Your task to perform on an android device: Open CNN.com Image 0: 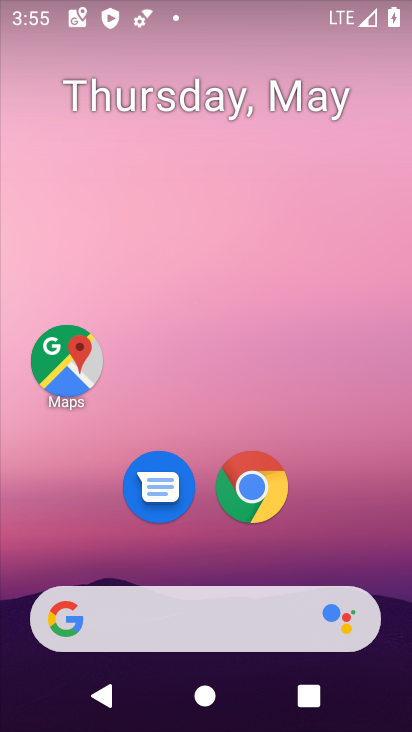
Step 0: drag from (212, 540) to (220, 152)
Your task to perform on an android device: Open CNN.com Image 1: 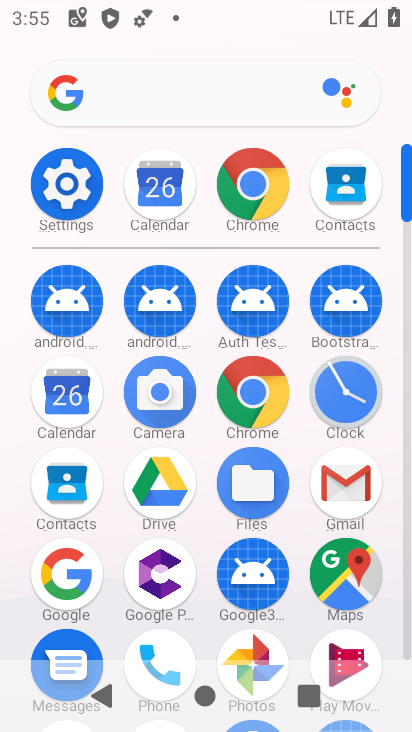
Step 1: click (262, 197)
Your task to perform on an android device: Open CNN.com Image 2: 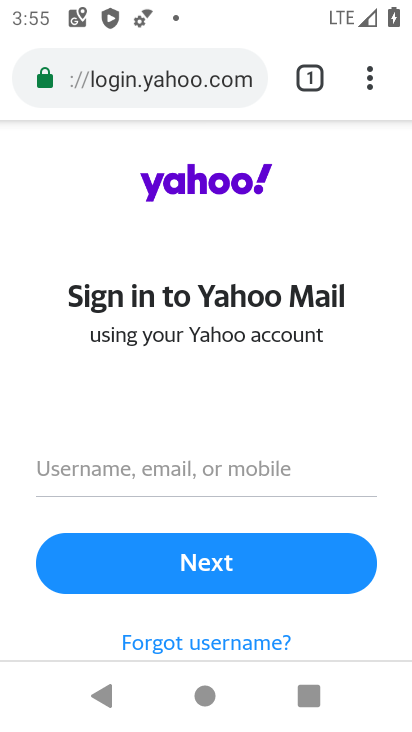
Step 2: click (209, 63)
Your task to perform on an android device: Open CNN.com Image 3: 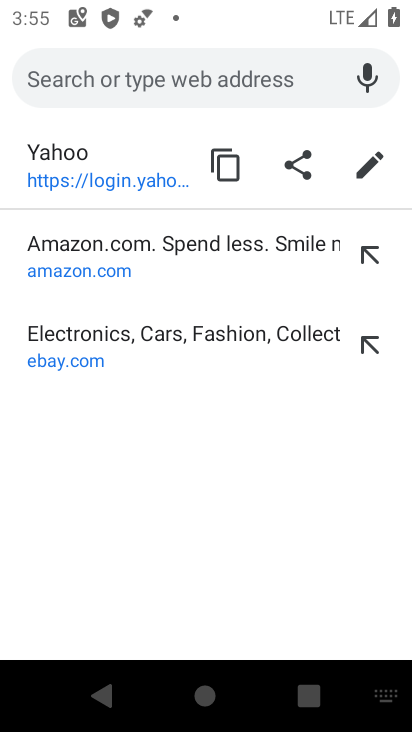
Step 3: type "cnn"
Your task to perform on an android device: Open CNN.com Image 4: 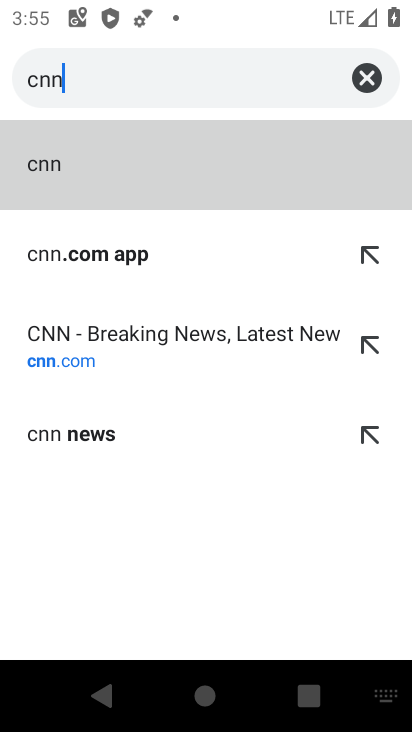
Step 4: click (228, 344)
Your task to perform on an android device: Open CNN.com Image 5: 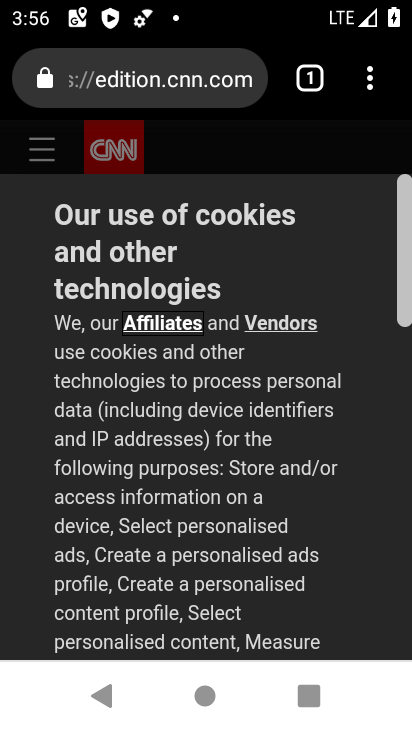
Step 5: task complete